Your task to perform on an android device: Open sound settings Image 0: 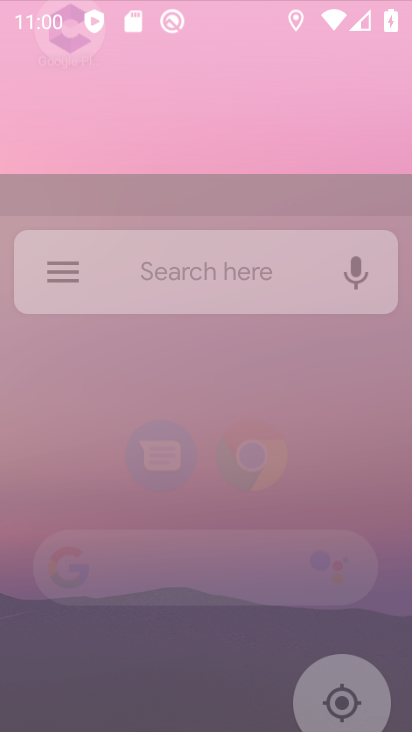
Step 0: drag from (150, 59) to (42, 74)
Your task to perform on an android device: Open sound settings Image 1: 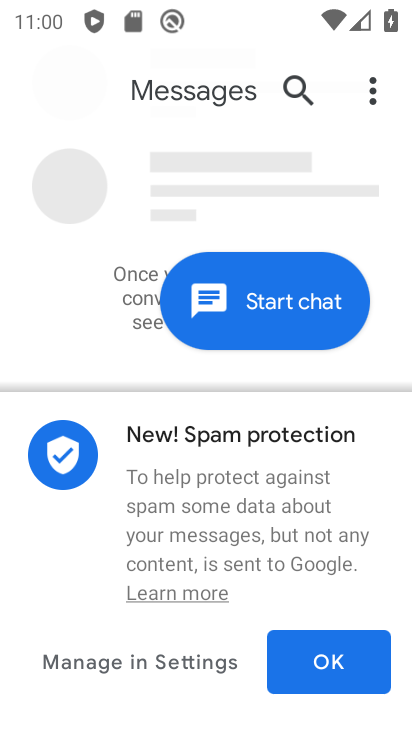
Step 1: press back button
Your task to perform on an android device: Open sound settings Image 2: 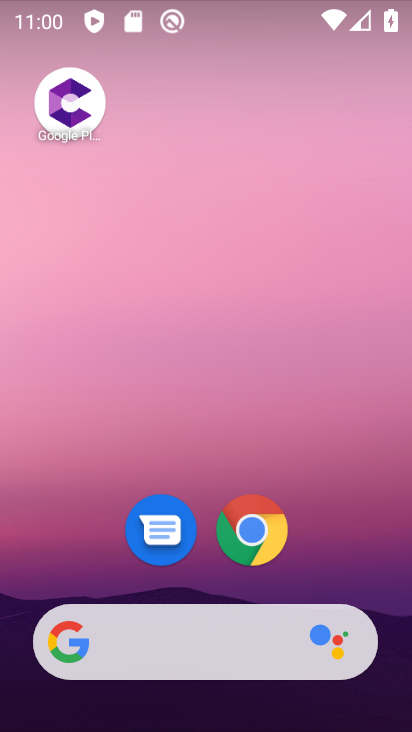
Step 2: drag from (289, 662) to (183, 62)
Your task to perform on an android device: Open sound settings Image 3: 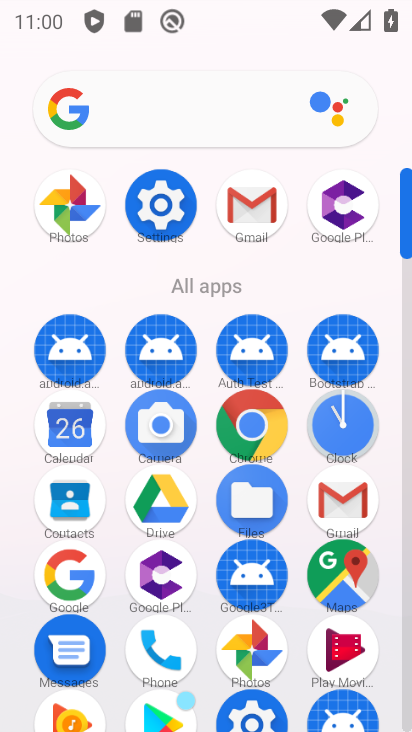
Step 3: click (143, 211)
Your task to perform on an android device: Open sound settings Image 4: 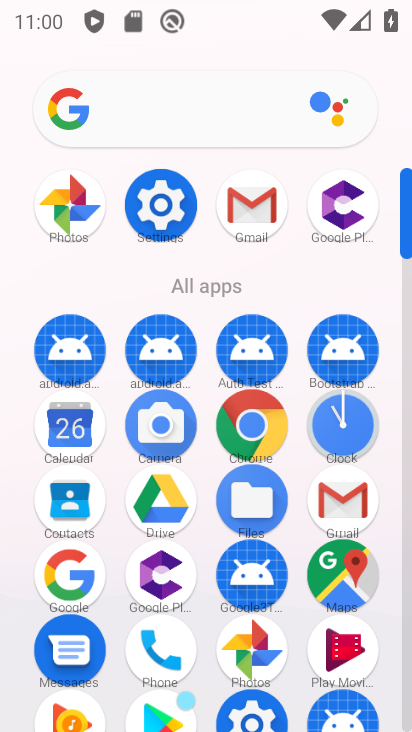
Step 4: click (146, 209)
Your task to perform on an android device: Open sound settings Image 5: 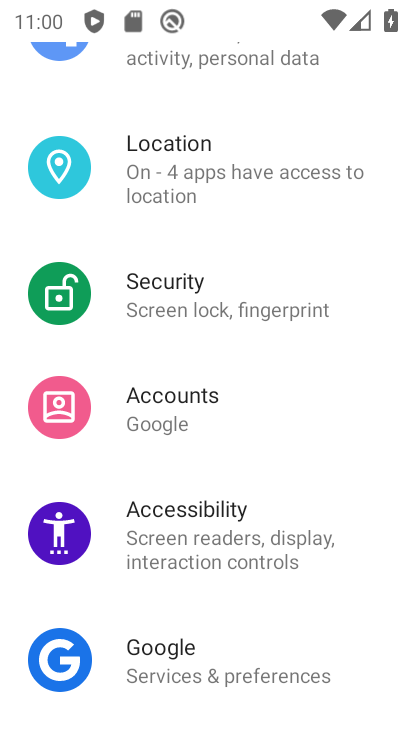
Step 5: click (145, 205)
Your task to perform on an android device: Open sound settings Image 6: 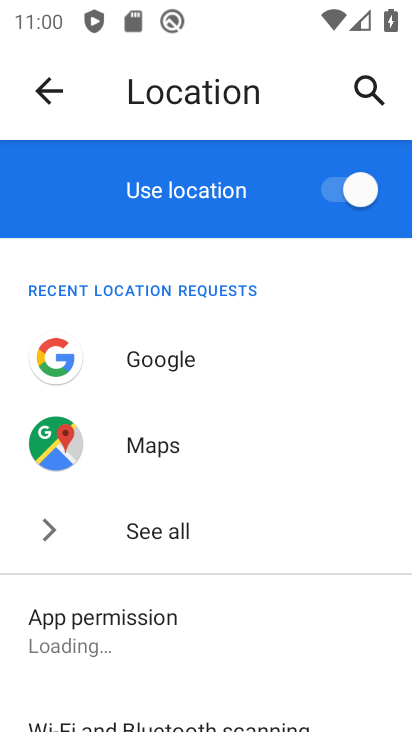
Step 6: click (51, 89)
Your task to perform on an android device: Open sound settings Image 7: 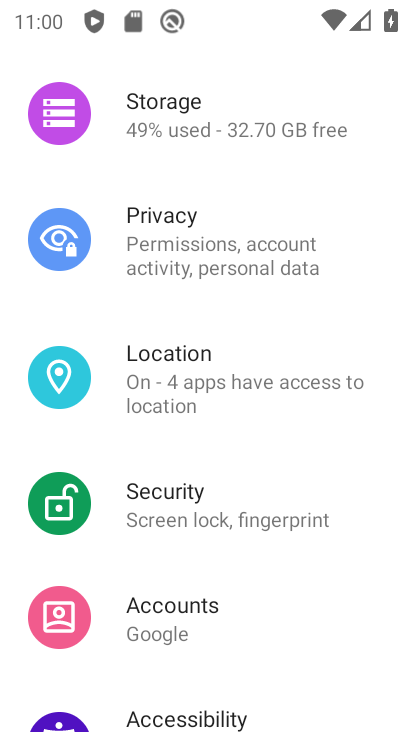
Step 7: drag from (194, 224) to (258, 602)
Your task to perform on an android device: Open sound settings Image 8: 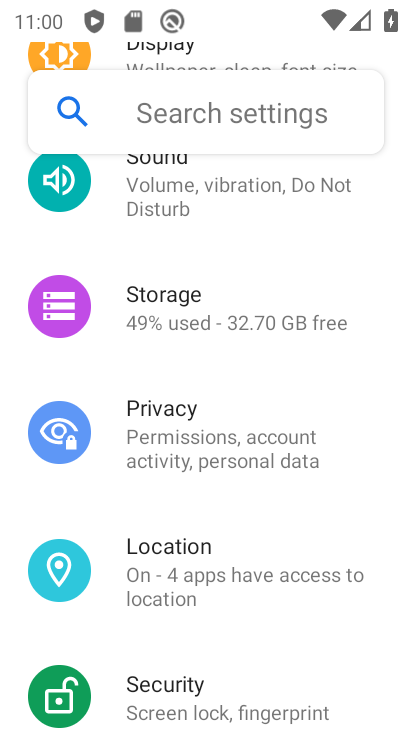
Step 8: drag from (184, 189) to (195, 645)
Your task to perform on an android device: Open sound settings Image 9: 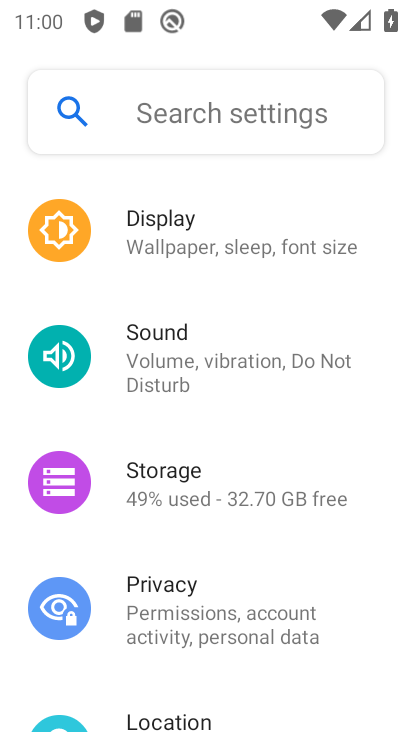
Step 9: click (174, 340)
Your task to perform on an android device: Open sound settings Image 10: 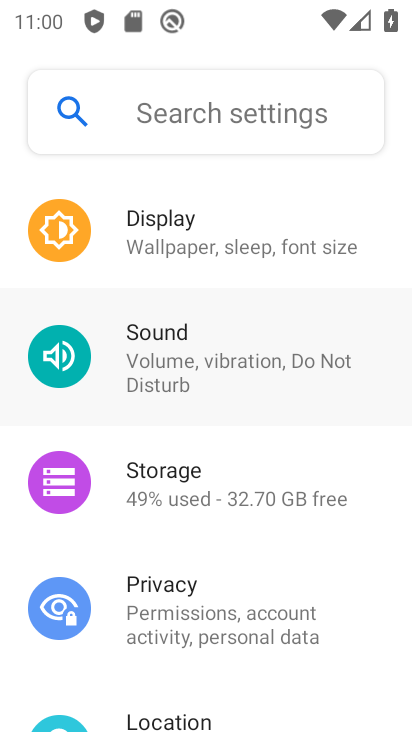
Step 10: click (164, 347)
Your task to perform on an android device: Open sound settings Image 11: 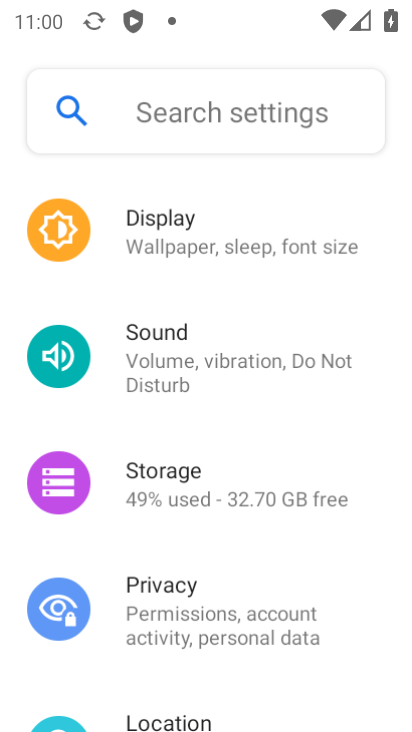
Step 11: click (163, 348)
Your task to perform on an android device: Open sound settings Image 12: 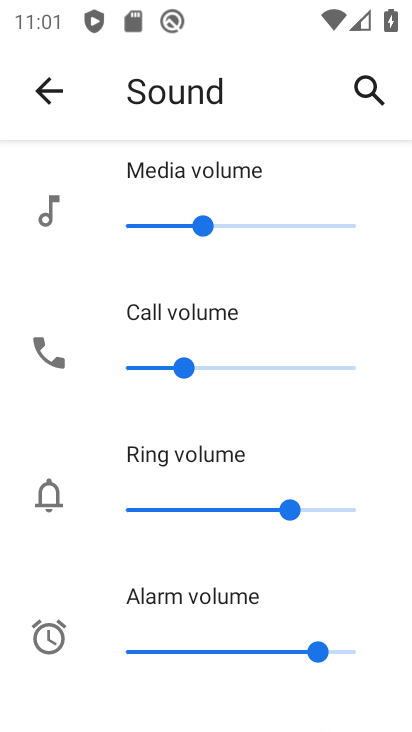
Step 12: task complete